Your task to perform on an android device: turn off notifications settings in the gmail app Image 0: 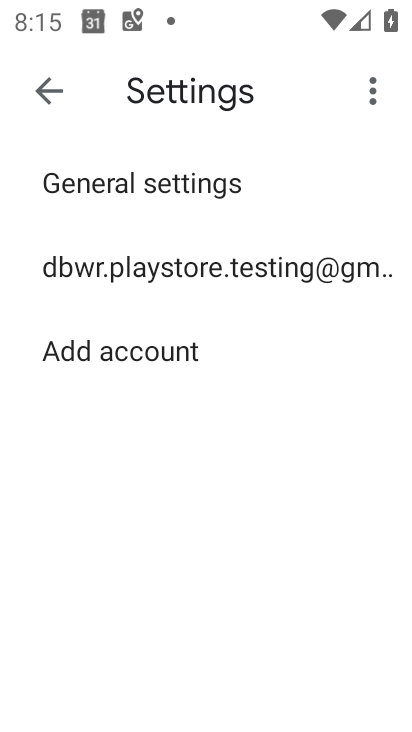
Step 0: press home button
Your task to perform on an android device: turn off notifications settings in the gmail app Image 1: 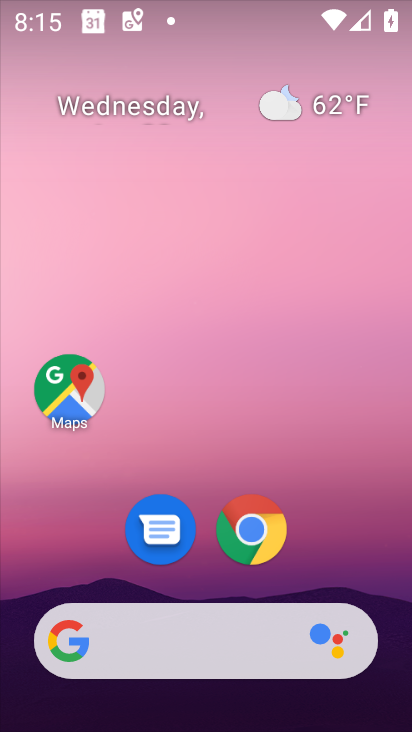
Step 1: drag from (159, 607) to (204, 72)
Your task to perform on an android device: turn off notifications settings in the gmail app Image 2: 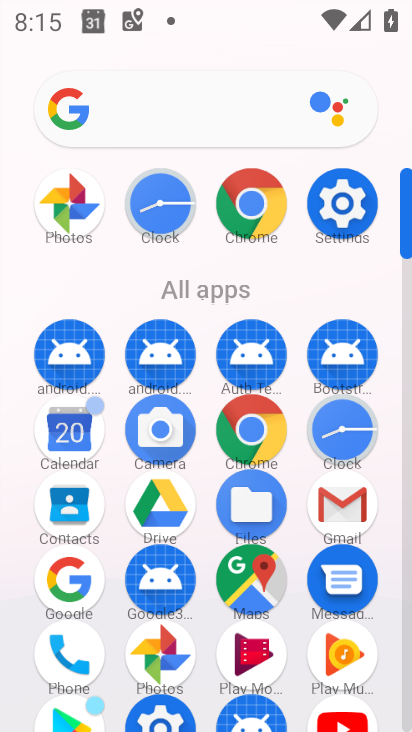
Step 2: click (340, 504)
Your task to perform on an android device: turn off notifications settings in the gmail app Image 3: 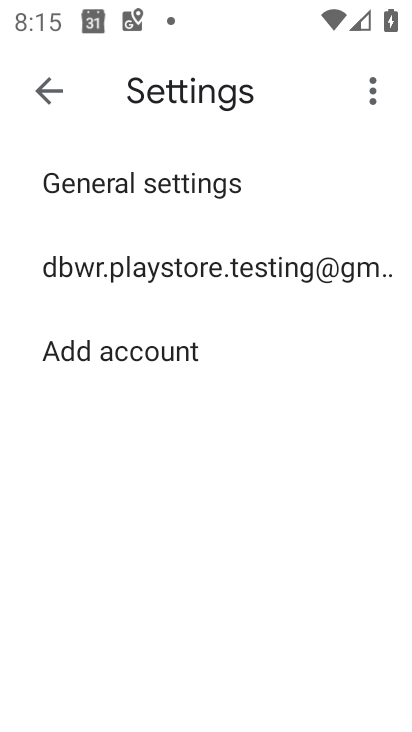
Step 3: click (254, 262)
Your task to perform on an android device: turn off notifications settings in the gmail app Image 4: 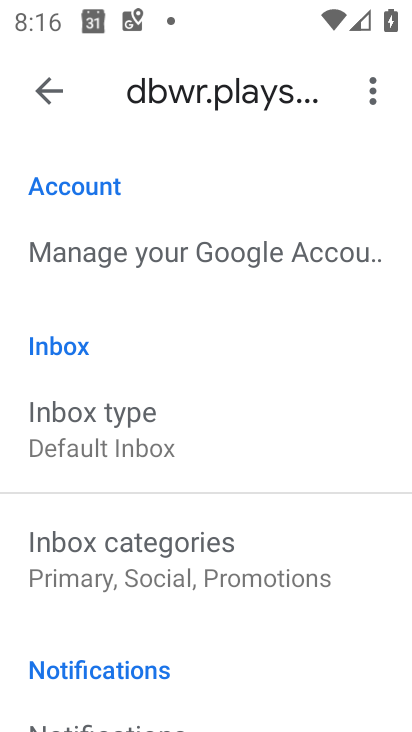
Step 4: drag from (107, 524) to (176, 192)
Your task to perform on an android device: turn off notifications settings in the gmail app Image 5: 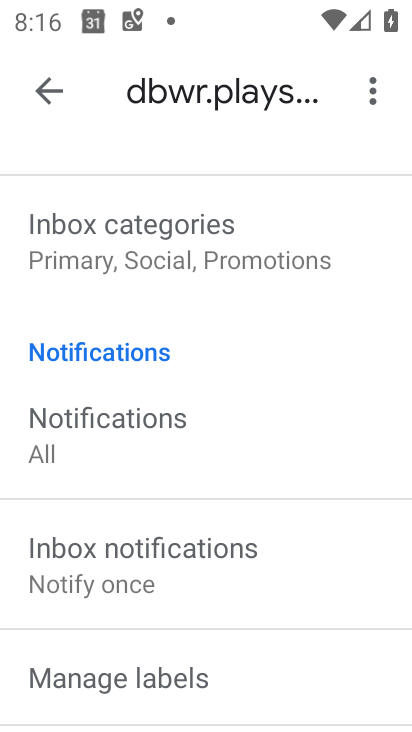
Step 5: drag from (158, 566) to (164, 366)
Your task to perform on an android device: turn off notifications settings in the gmail app Image 6: 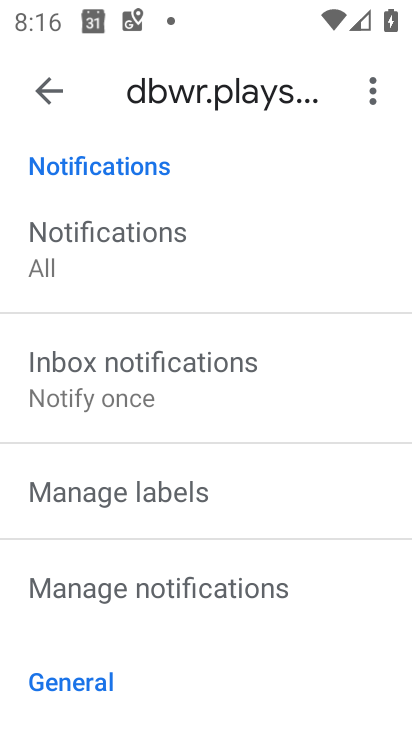
Step 6: click (99, 238)
Your task to perform on an android device: turn off notifications settings in the gmail app Image 7: 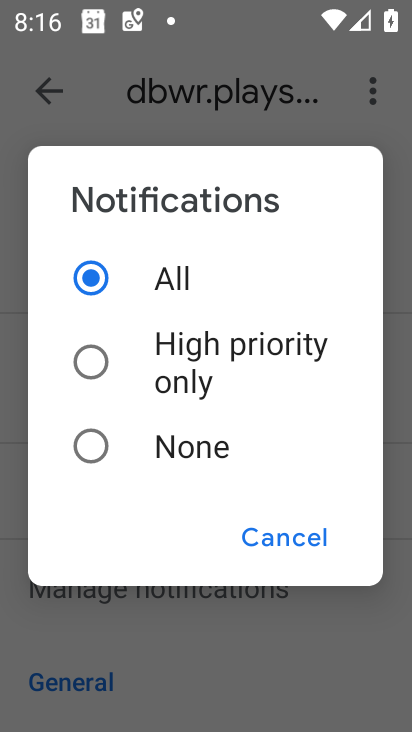
Step 7: click (83, 466)
Your task to perform on an android device: turn off notifications settings in the gmail app Image 8: 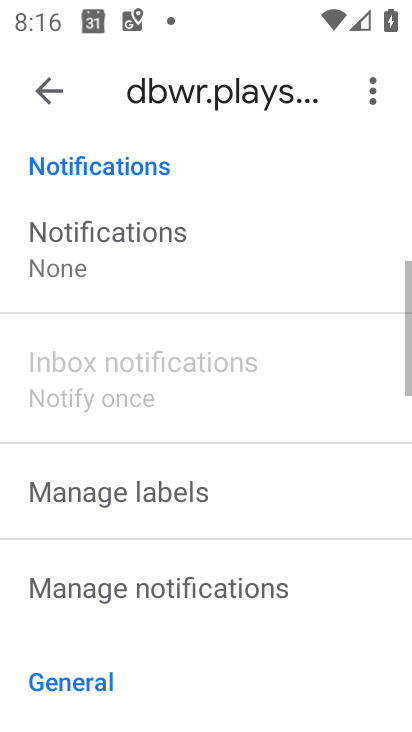
Step 8: task complete